Your task to perform on an android device: Open Android settings Image 0: 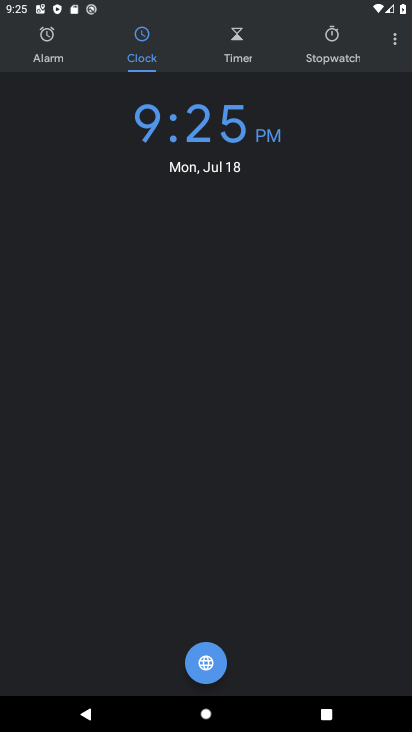
Step 0: press home button
Your task to perform on an android device: Open Android settings Image 1: 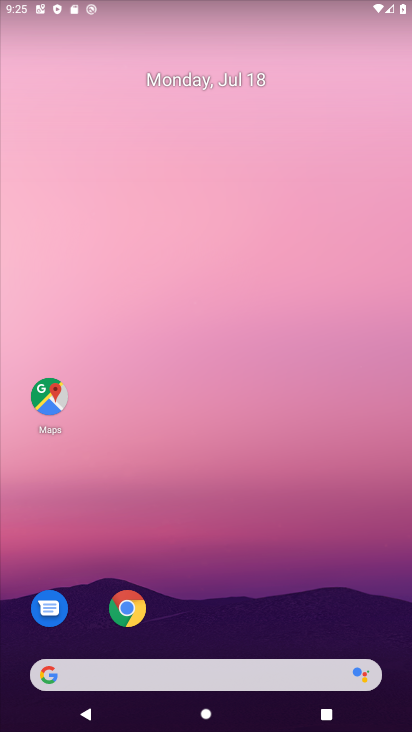
Step 1: drag from (225, 506) to (257, 37)
Your task to perform on an android device: Open Android settings Image 2: 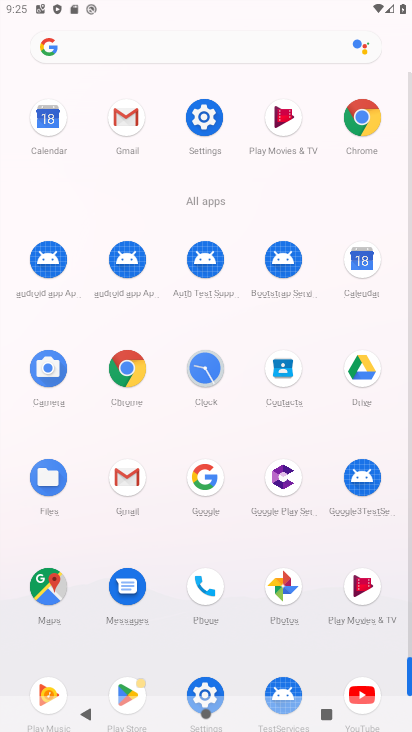
Step 2: drag from (217, 651) to (247, 422)
Your task to perform on an android device: Open Android settings Image 3: 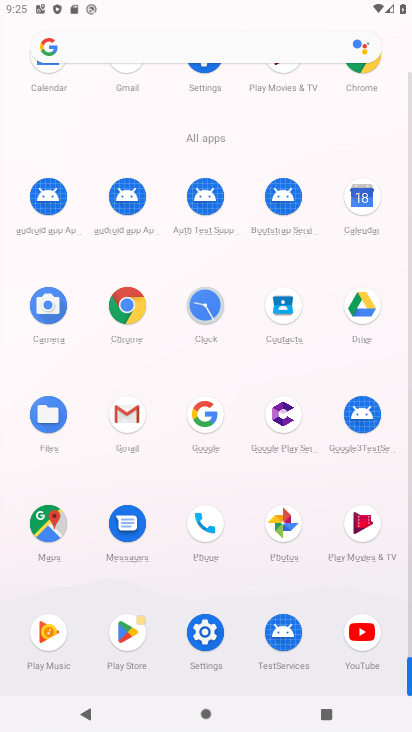
Step 3: click (192, 617)
Your task to perform on an android device: Open Android settings Image 4: 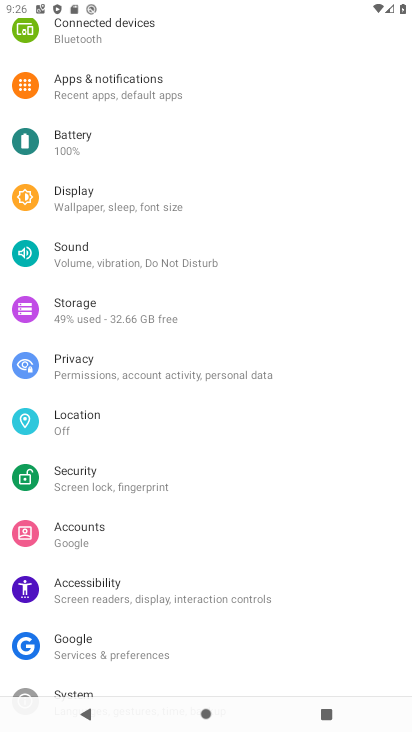
Step 4: drag from (129, 597) to (175, 200)
Your task to perform on an android device: Open Android settings Image 5: 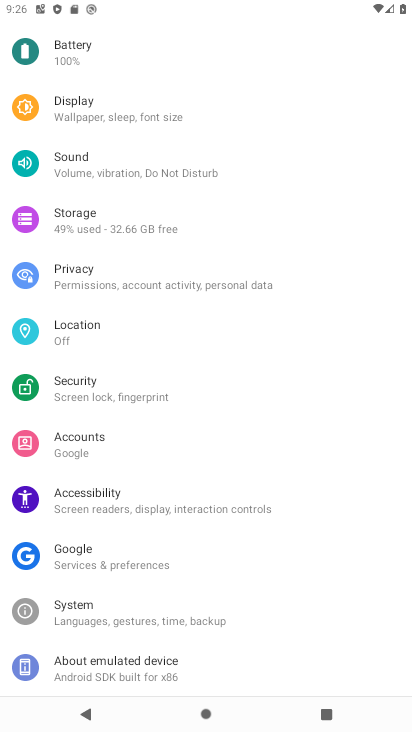
Step 5: click (118, 661)
Your task to perform on an android device: Open Android settings Image 6: 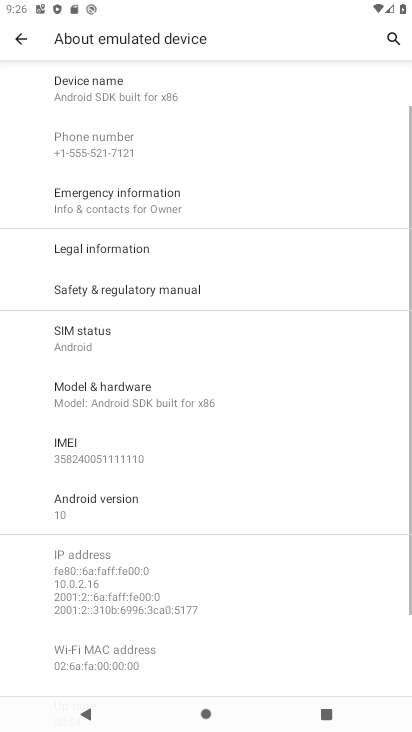
Step 6: click (123, 506)
Your task to perform on an android device: Open Android settings Image 7: 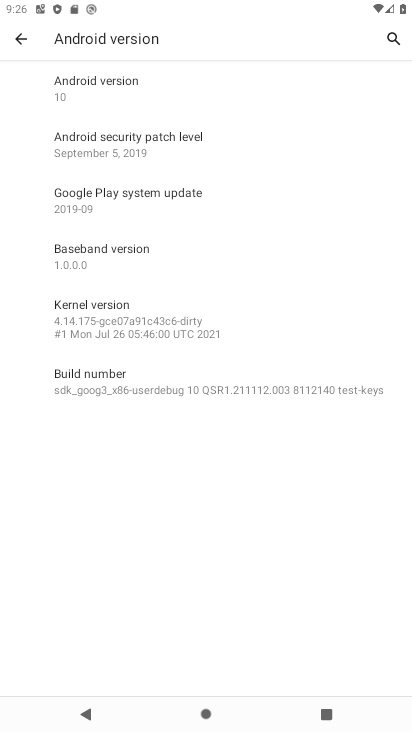
Step 7: task complete